Your task to perform on an android device: turn off notifications settings in the gmail app Image 0: 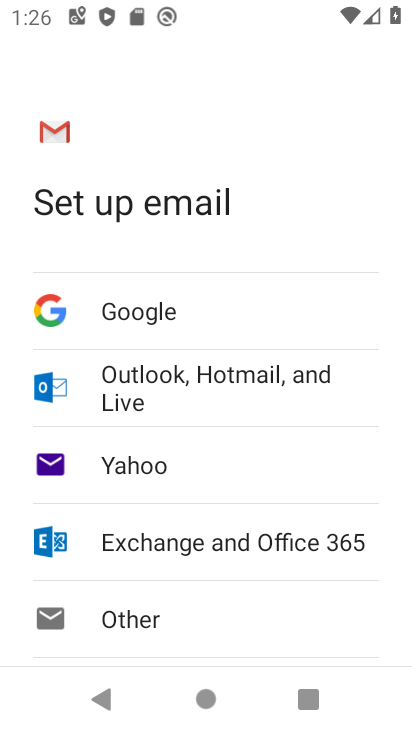
Step 0: press home button
Your task to perform on an android device: turn off notifications settings in the gmail app Image 1: 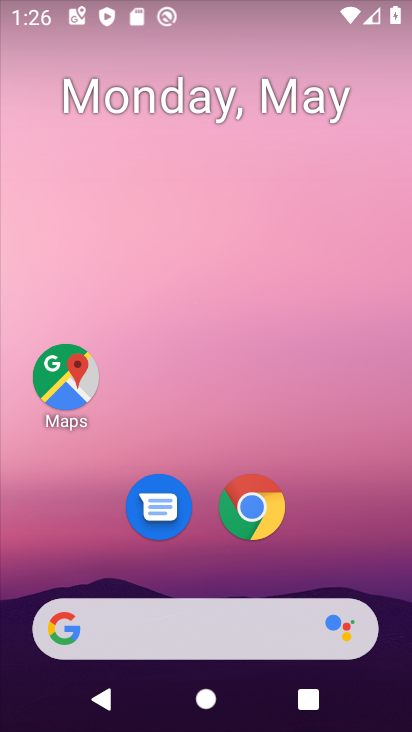
Step 1: drag from (236, 710) to (208, 90)
Your task to perform on an android device: turn off notifications settings in the gmail app Image 2: 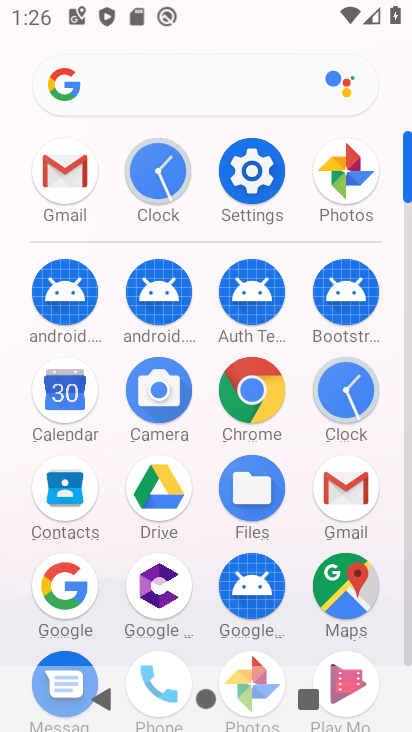
Step 2: click (350, 480)
Your task to perform on an android device: turn off notifications settings in the gmail app Image 3: 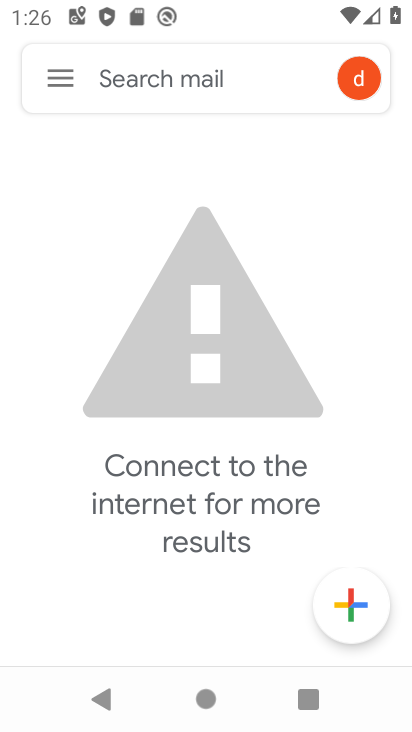
Step 3: click (58, 80)
Your task to perform on an android device: turn off notifications settings in the gmail app Image 4: 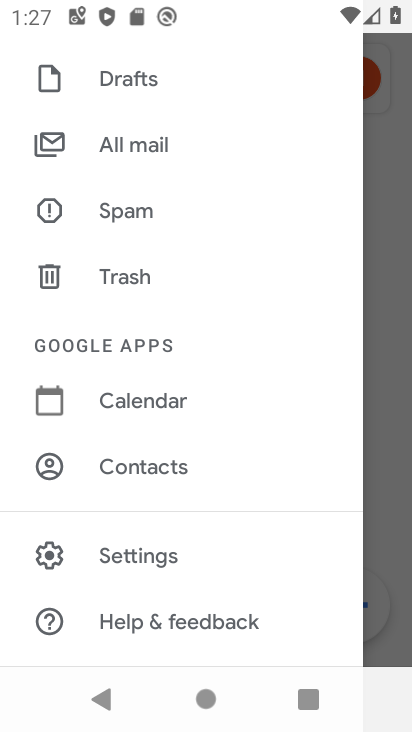
Step 4: click (147, 555)
Your task to perform on an android device: turn off notifications settings in the gmail app Image 5: 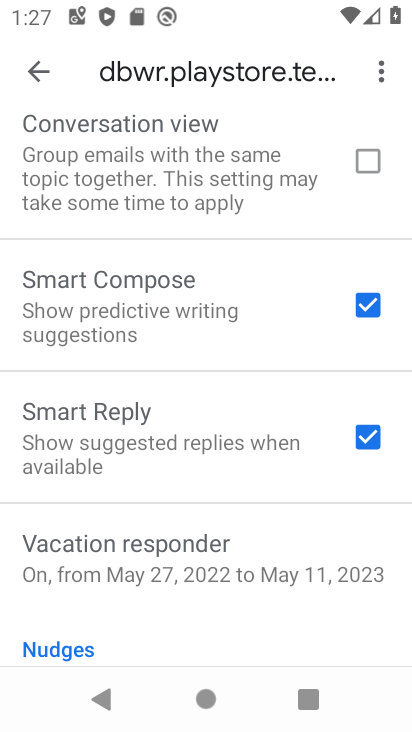
Step 5: drag from (161, 114) to (182, 525)
Your task to perform on an android device: turn off notifications settings in the gmail app Image 6: 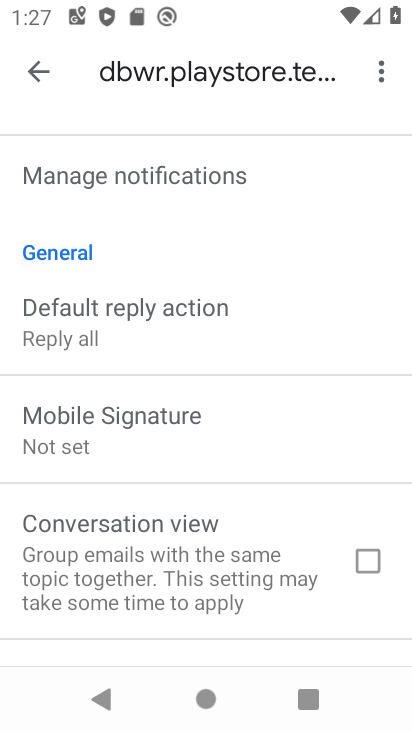
Step 6: drag from (240, 136) to (228, 546)
Your task to perform on an android device: turn off notifications settings in the gmail app Image 7: 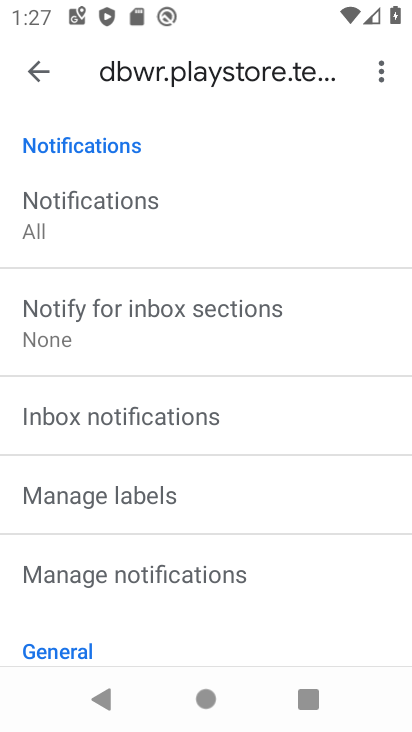
Step 7: drag from (210, 130) to (203, 289)
Your task to perform on an android device: turn off notifications settings in the gmail app Image 8: 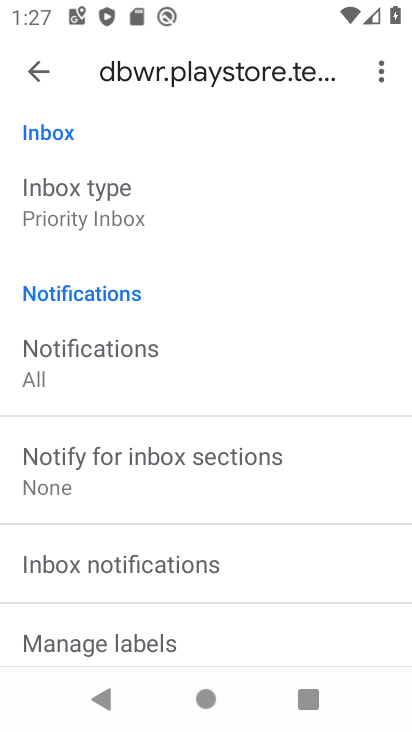
Step 8: click (122, 368)
Your task to perform on an android device: turn off notifications settings in the gmail app Image 9: 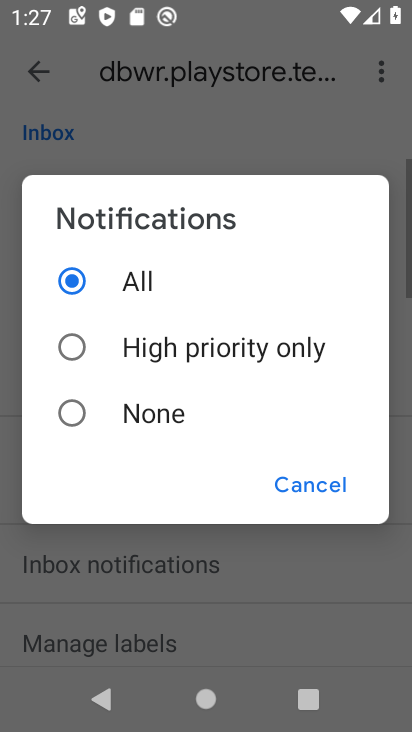
Step 9: click (70, 413)
Your task to perform on an android device: turn off notifications settings in the gmail app Image 10: 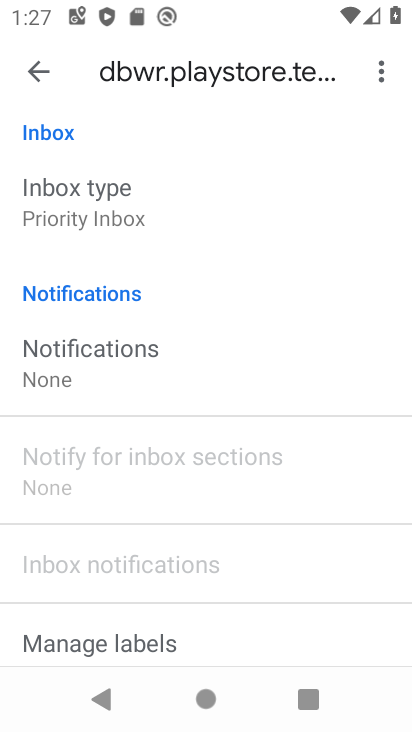
Step 10: task complete